Your task to perform on an android device: Go to ESPN.com Image 0: 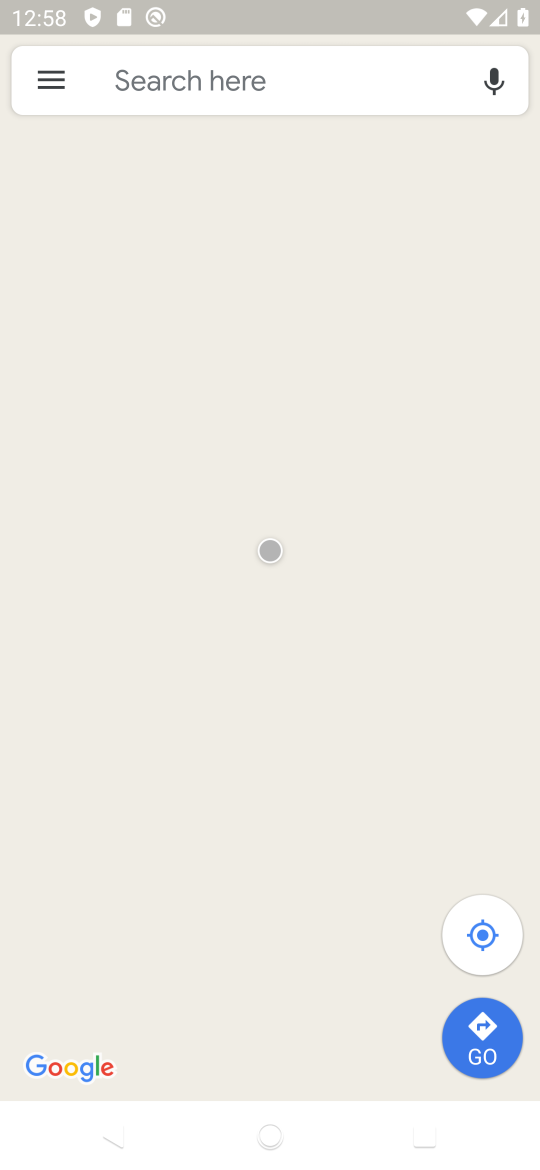
Step 0: press home button
Your task to perform on an android device: Go to ESPN.com Image 1: 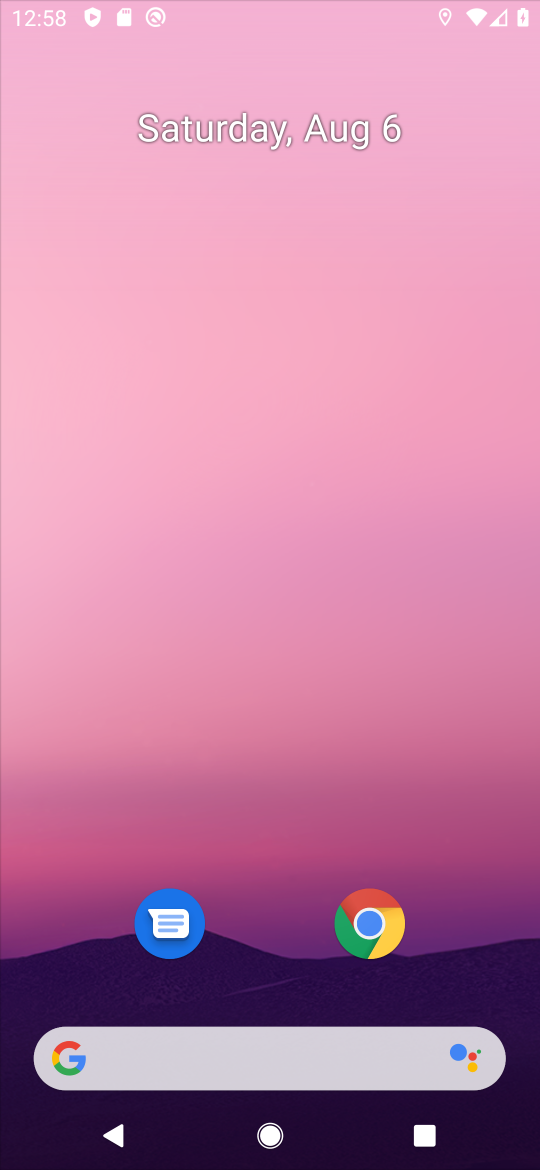
Step 1: drag from (287, 710) to (396, 353)
Your task to perform on an android device: Go to ESPN.com Image 2: 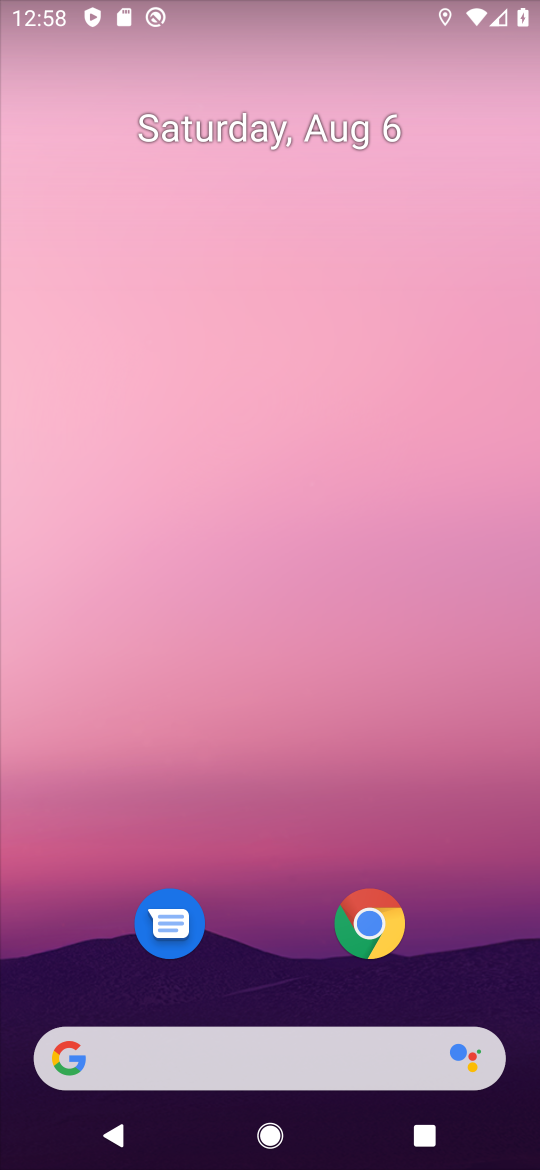
Step 2: click (363, 277)
Your task to perform on an android device: Go to ESPN.com Image 3: 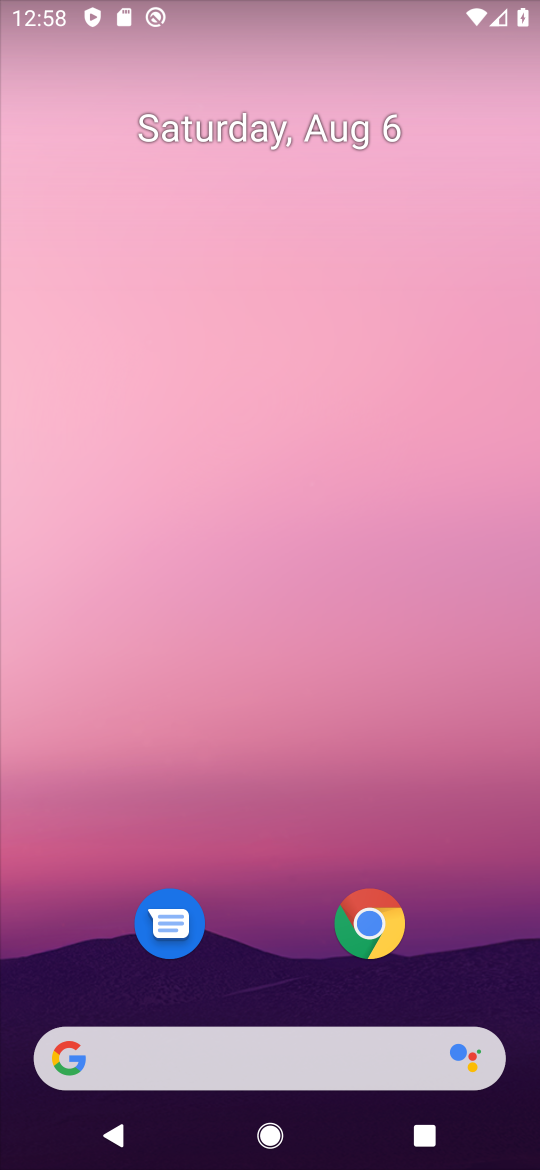
Step 3: drag from (267, 931) to (409, 10)
Your task to perform on an android device: Go to ESPN.com Image 4: 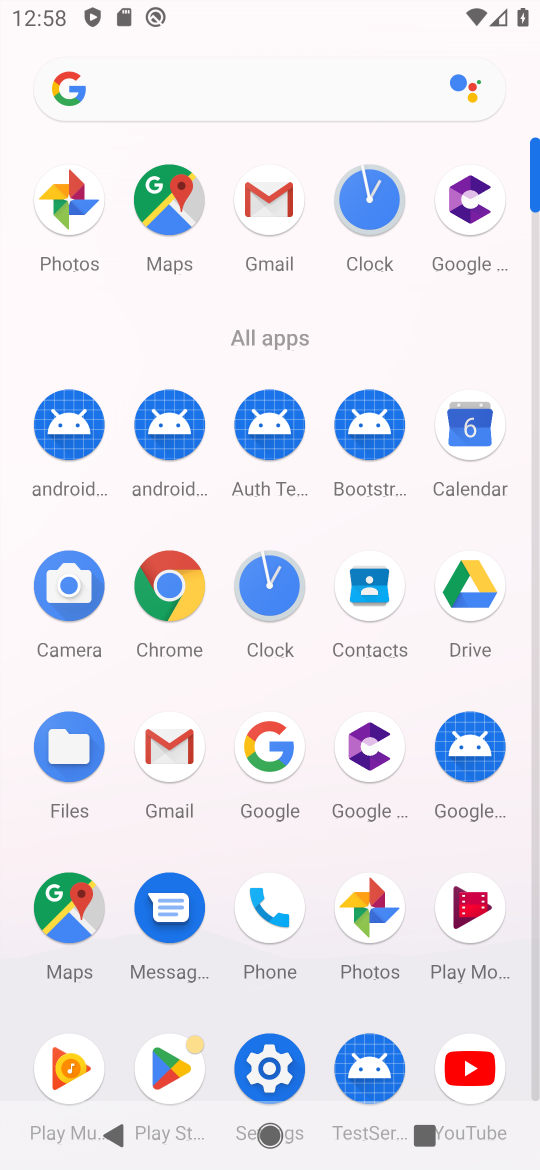
Step 4: click (166, 88)
Your task to perform on an android device: Go to ESPN.com Image 5: 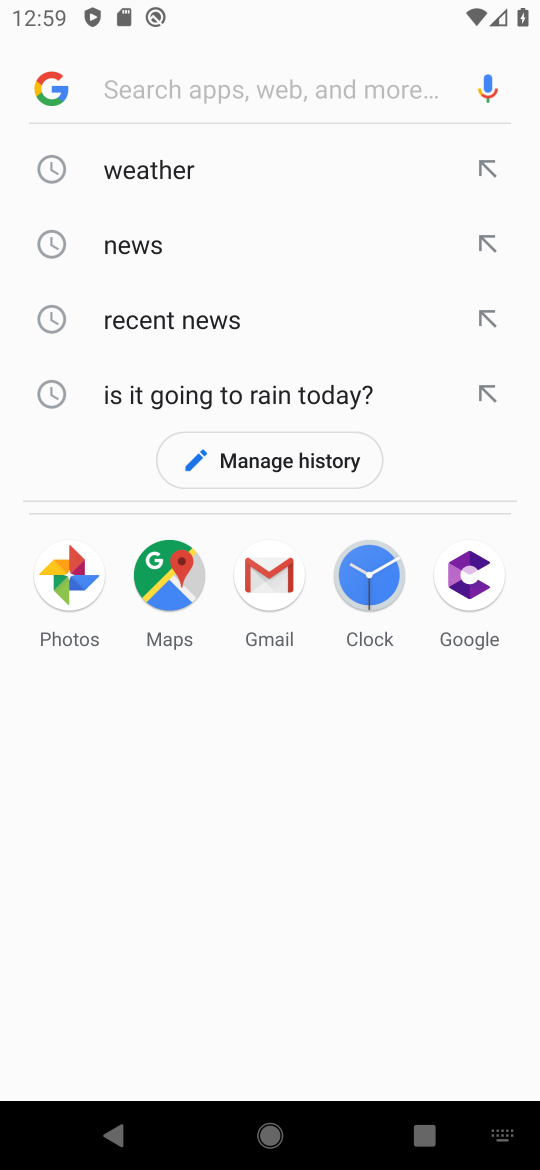
Step 5: type "ESPN.com"
Your task to perform on an android device: Go to ESPN.com Image 6: 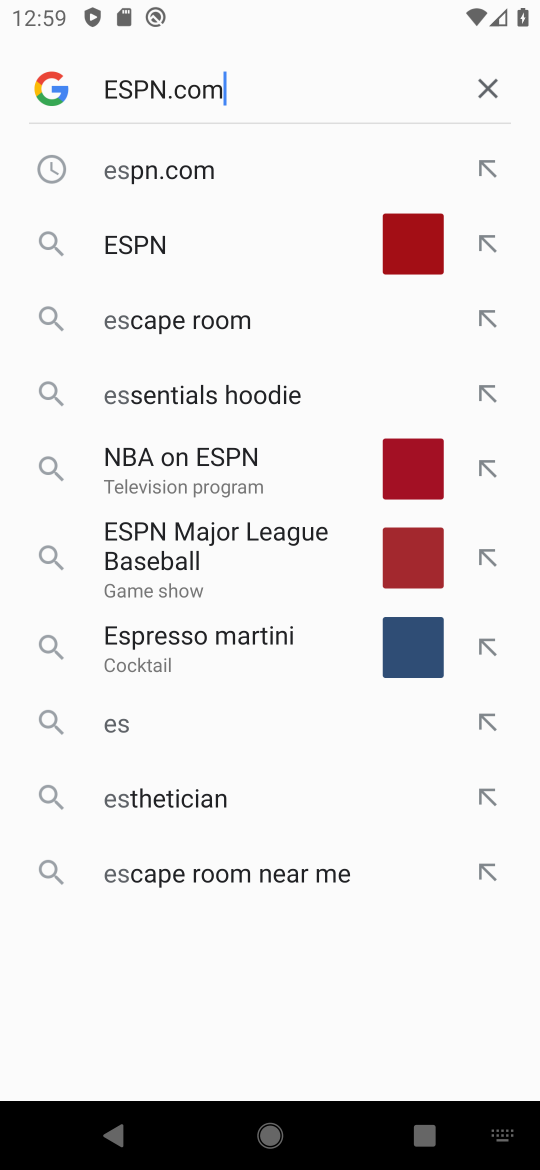
Step 6: type ""
Your task to perform on an android device: Go to ESPN.com Image 7: 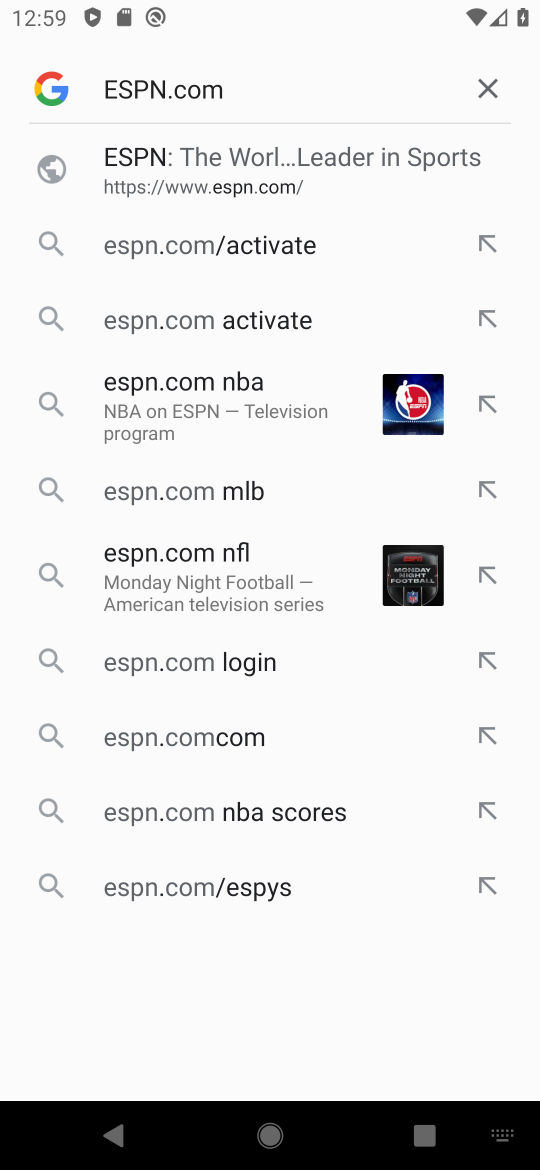
Step 7: click (149, 173)
Your task to perform on an android device: Go to ESPN.com Image 8: 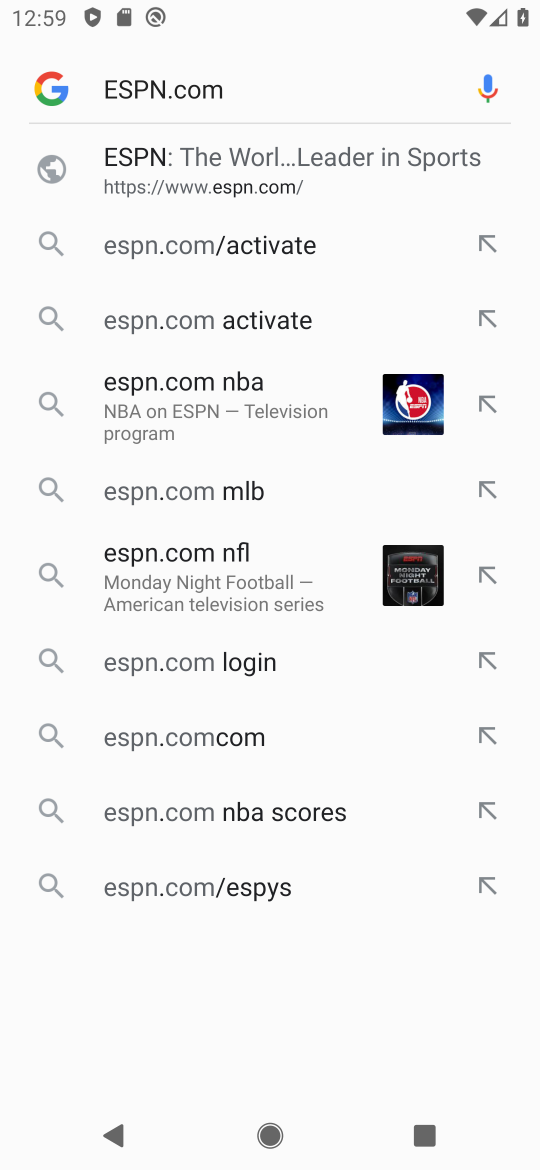
Step 8: click (149, 173)
Your task to perform on an android device: Go to ESPN.com Image 9: 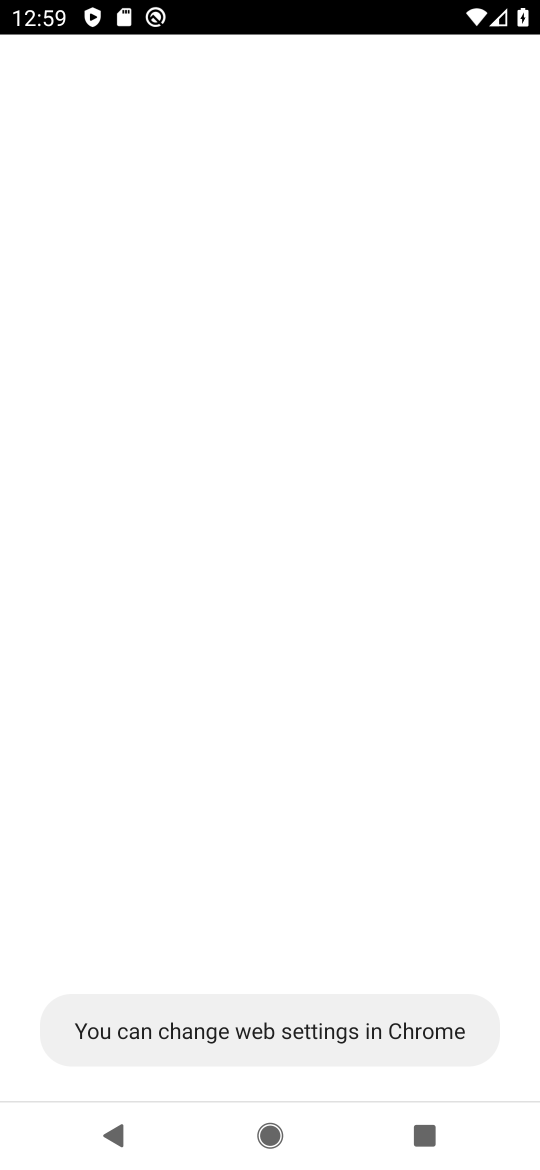
Step 9: task complete